Your task to perform on an android device: Go to privacy settings Image 0: 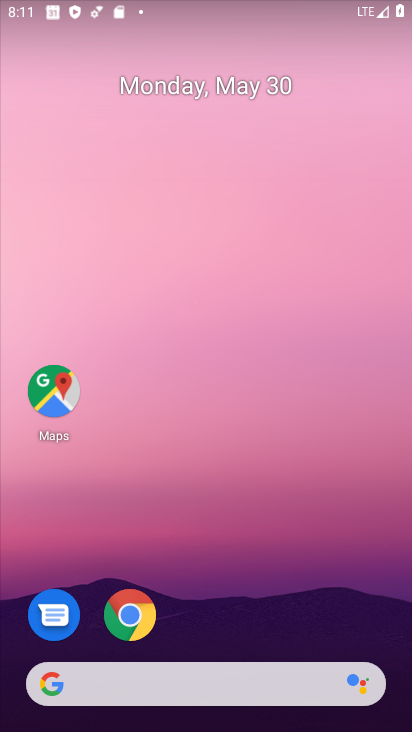
Step 0: drag from (98, 724) to (156, 113)
Your task to perform on an android device: Go to privacy settings Image 1: 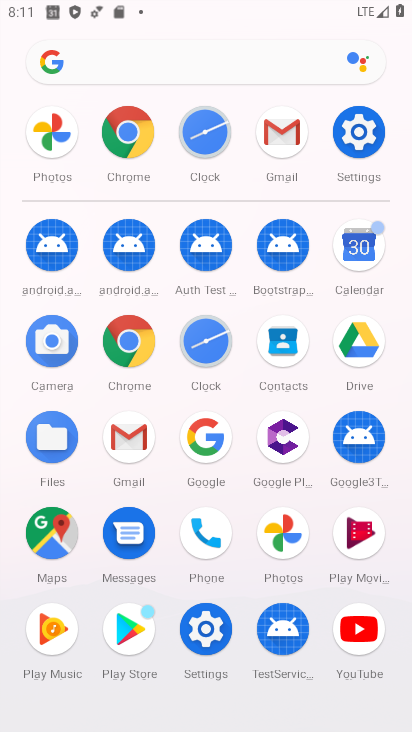
Step 1: click (211, 624)
Your task to perform on an android device: Go to privacy settings Image 2: 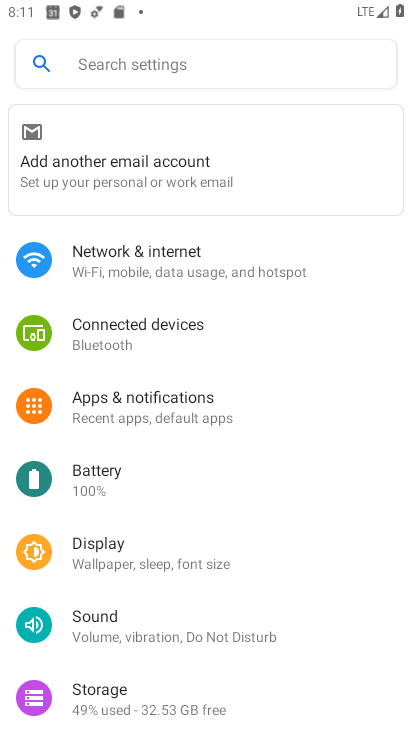
Step 2: drag from (219, 674) to (248, 163)
Your task to perform on an android device: Go to privacy settings Image 3: 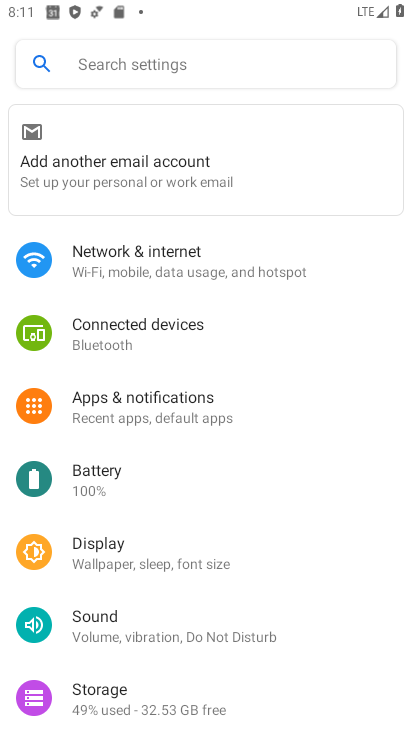
Step 3: drag from (157, 655) to (190, 292)
Your task to perform on an android device: Go to privacy settings Image 4: 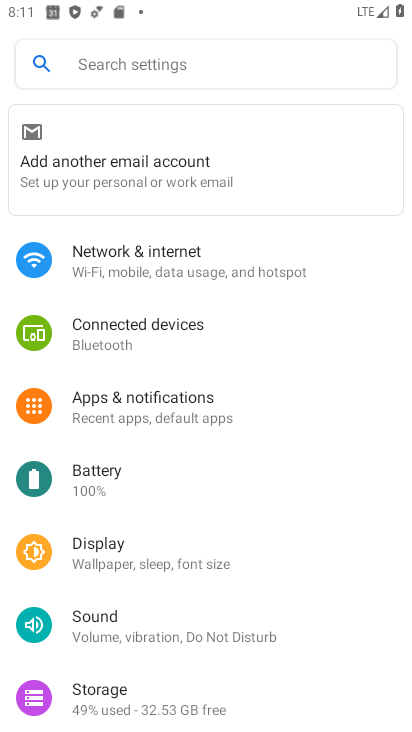
Step 4: drag from (320, 669) to (325, 240)
Your task to perform on an android device: Go to privacy settings Image 5: 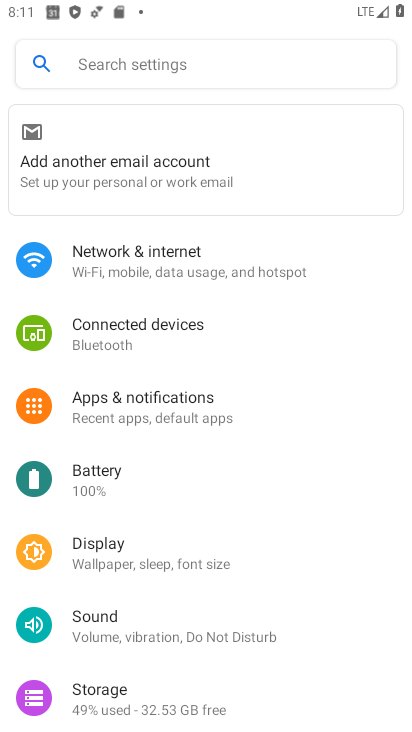
Step 5: drag from (42, 700) to (94, 271)
Your task to perform on an android device: Go to privacy settings Image 6: 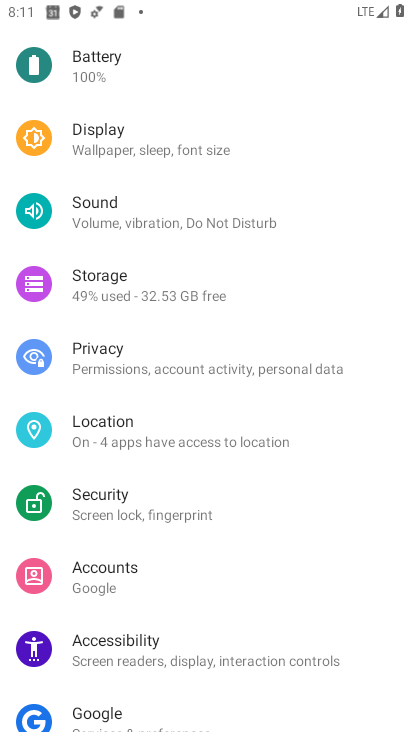
Step 6: click (100, 366)
Your task to perform on an android device: Go to privacy settings Image 7: 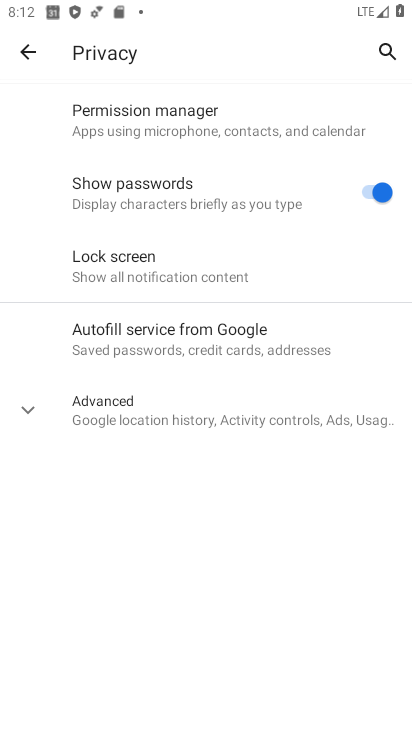
Step 7: task complete